Your task to perform on an android device: check out phone information Image 0: 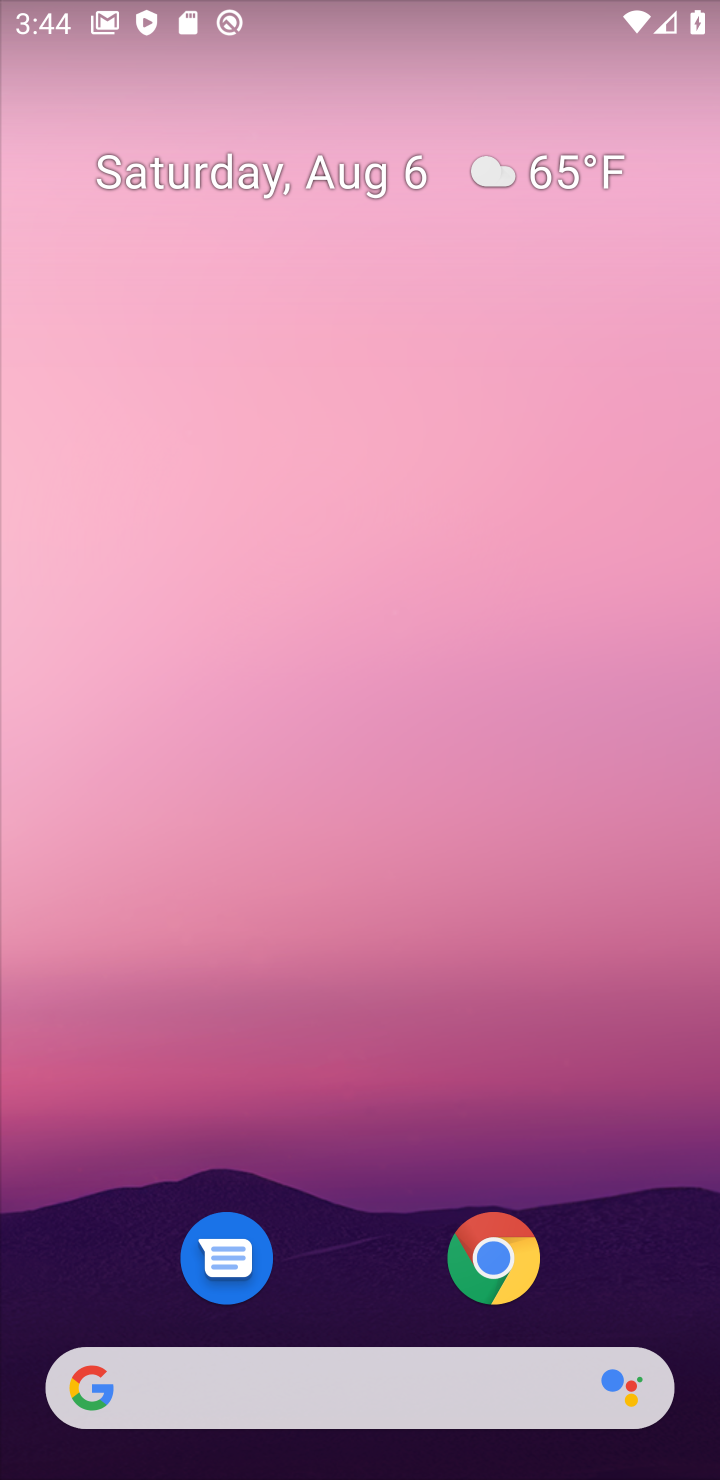
Step 0: drag from (367, 59) to (495, 0)
Your task to perform on an android device: check out phone information Image 1: 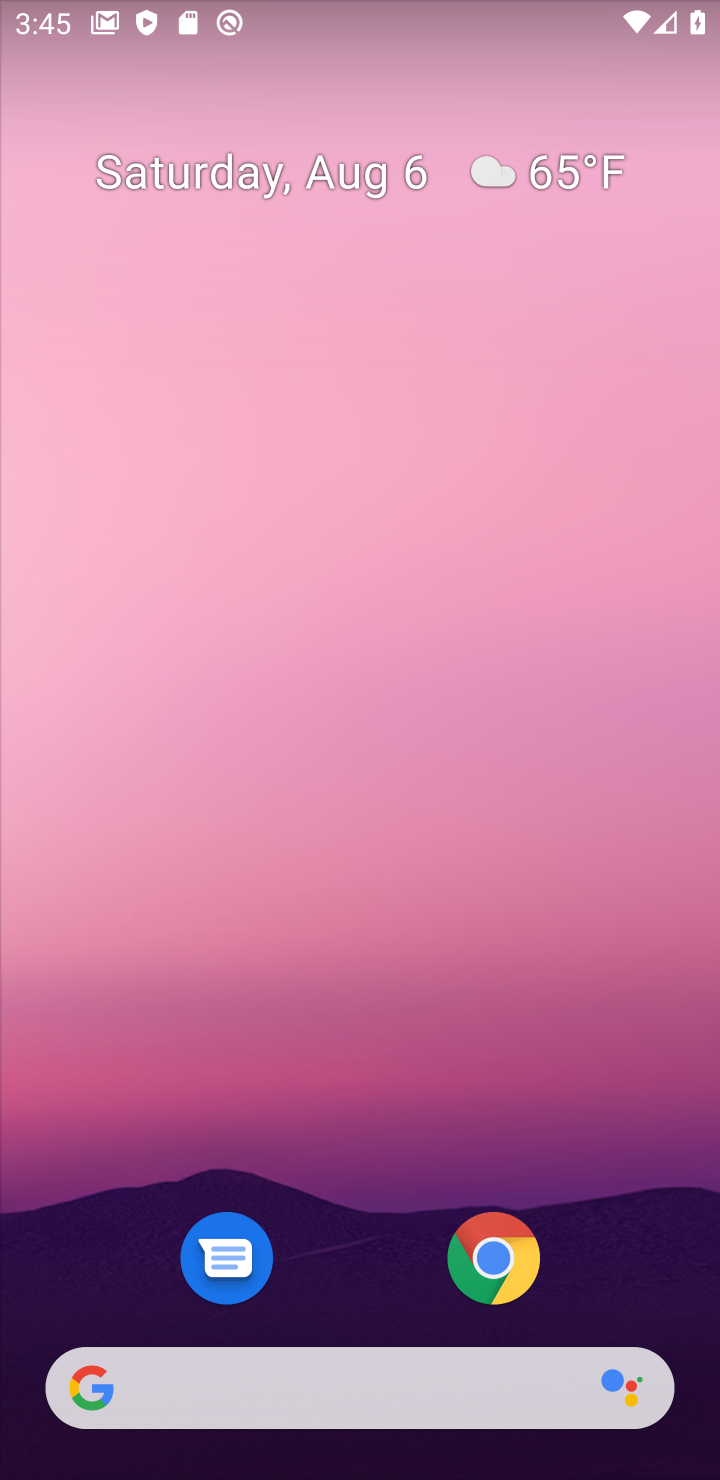
Step 1: drag from (377, 1259) to (508, 0)
Your task to perform on an android device: check out phone information Image 2: 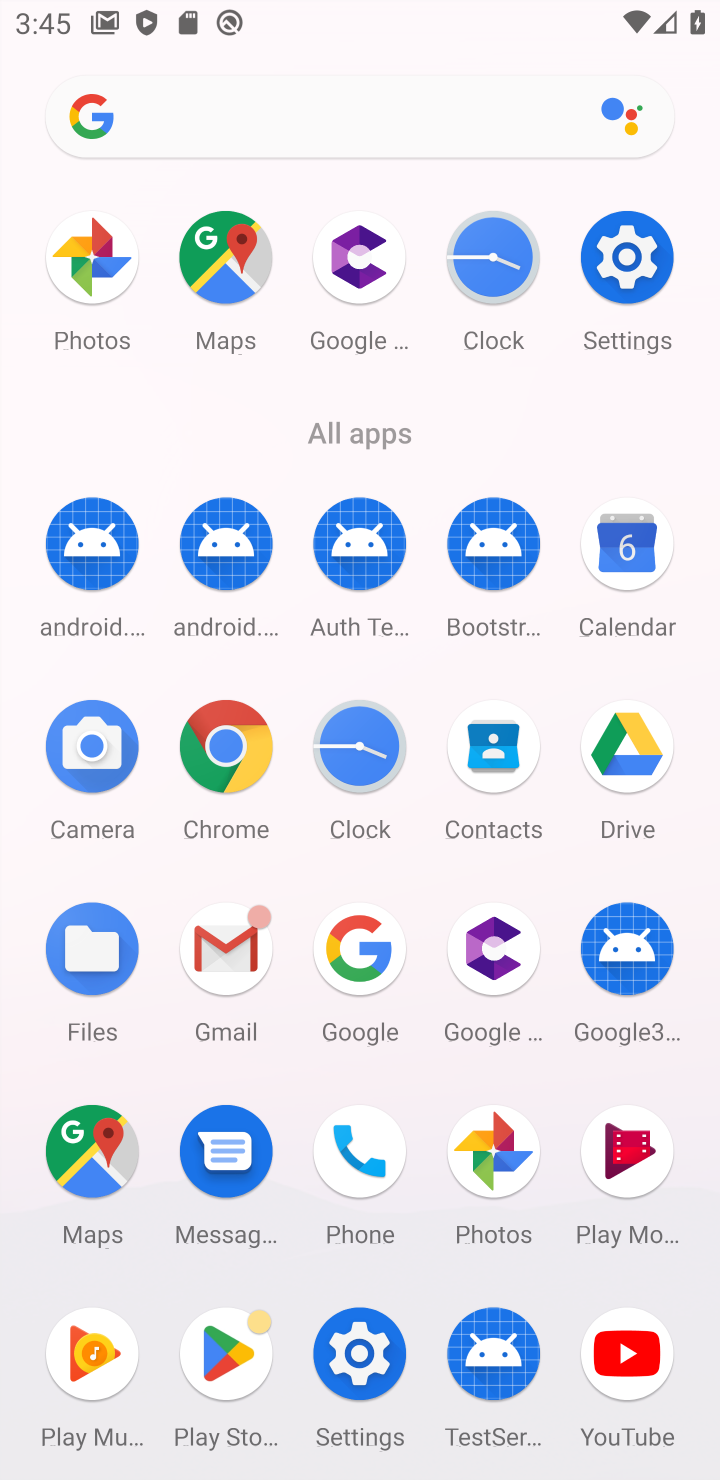
Step 2: click (363, 1358)
Your task to perform on an android device: check out phone information Image 3: 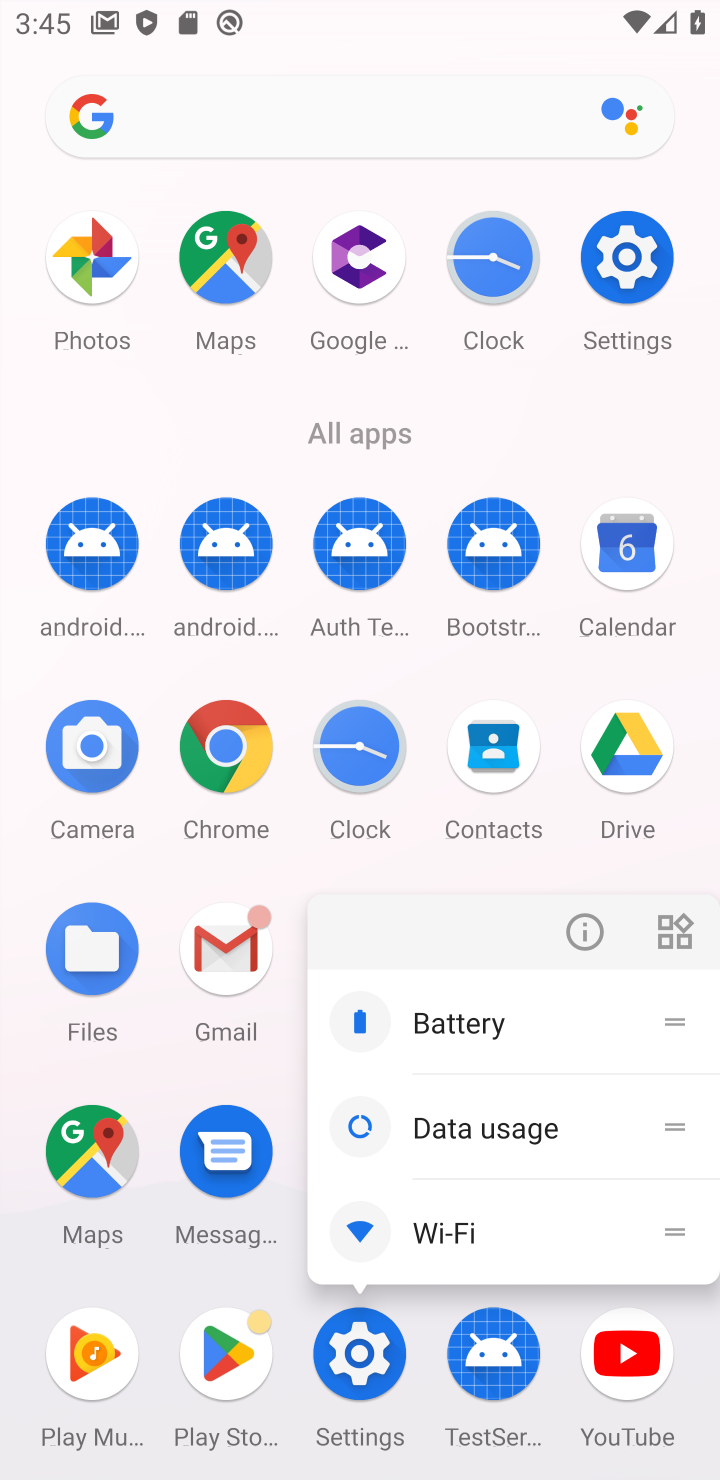
Step 3: click (372, 1371)
Your task to perform on an android device: check out phone information Image 4: 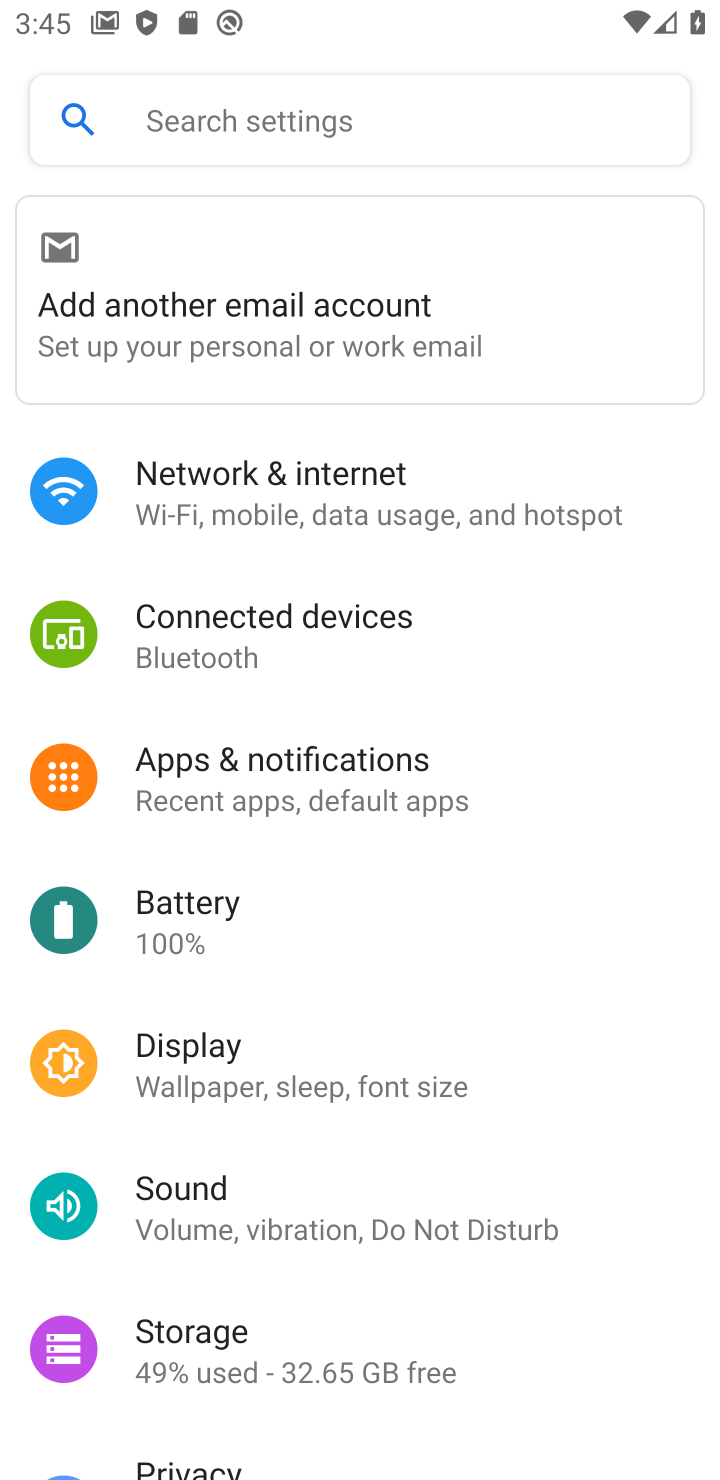
Step 4: drag from (268, 1104) to (455, 202)
Your task to perform on an android device: check out phone information Image 5: 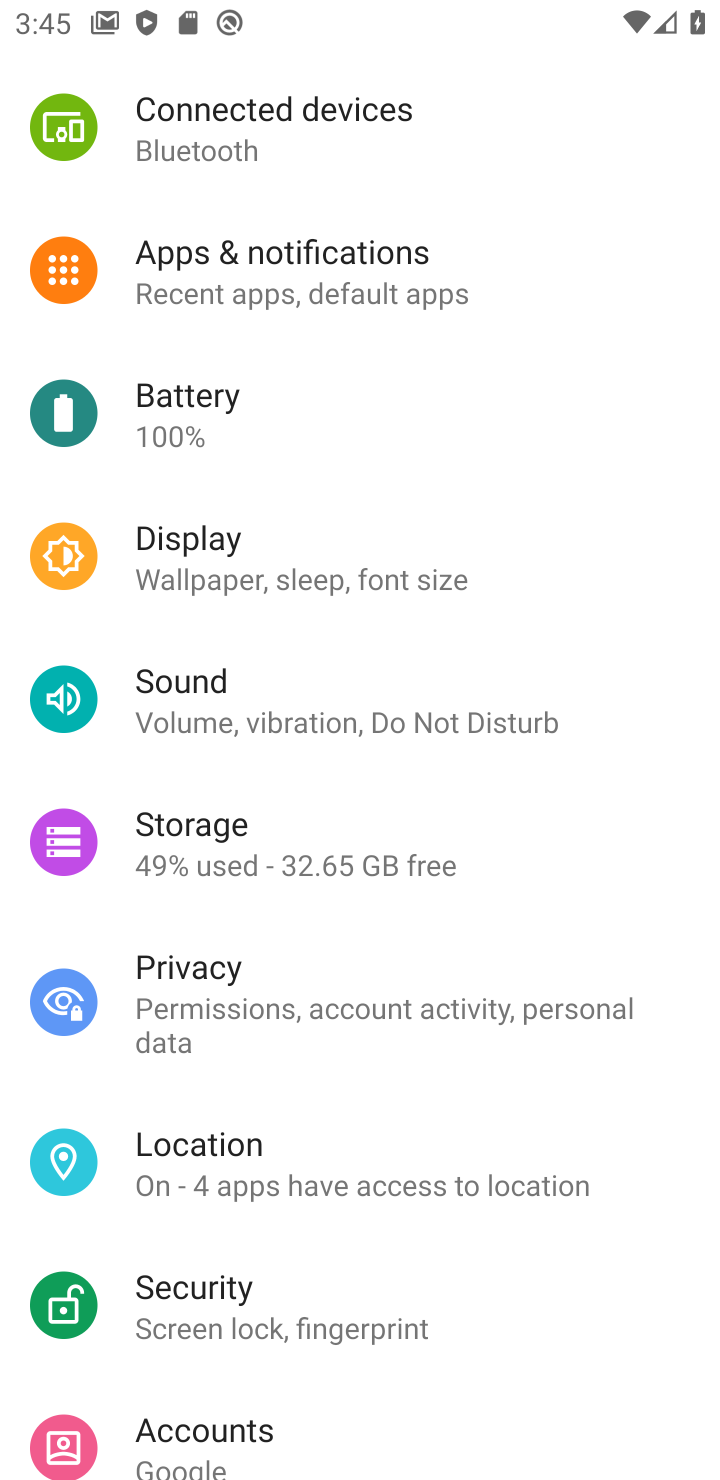
Step 5: drag from (359, 1015) to (594, 8)
Your task to perform on an android device: check out phone information Image 6: 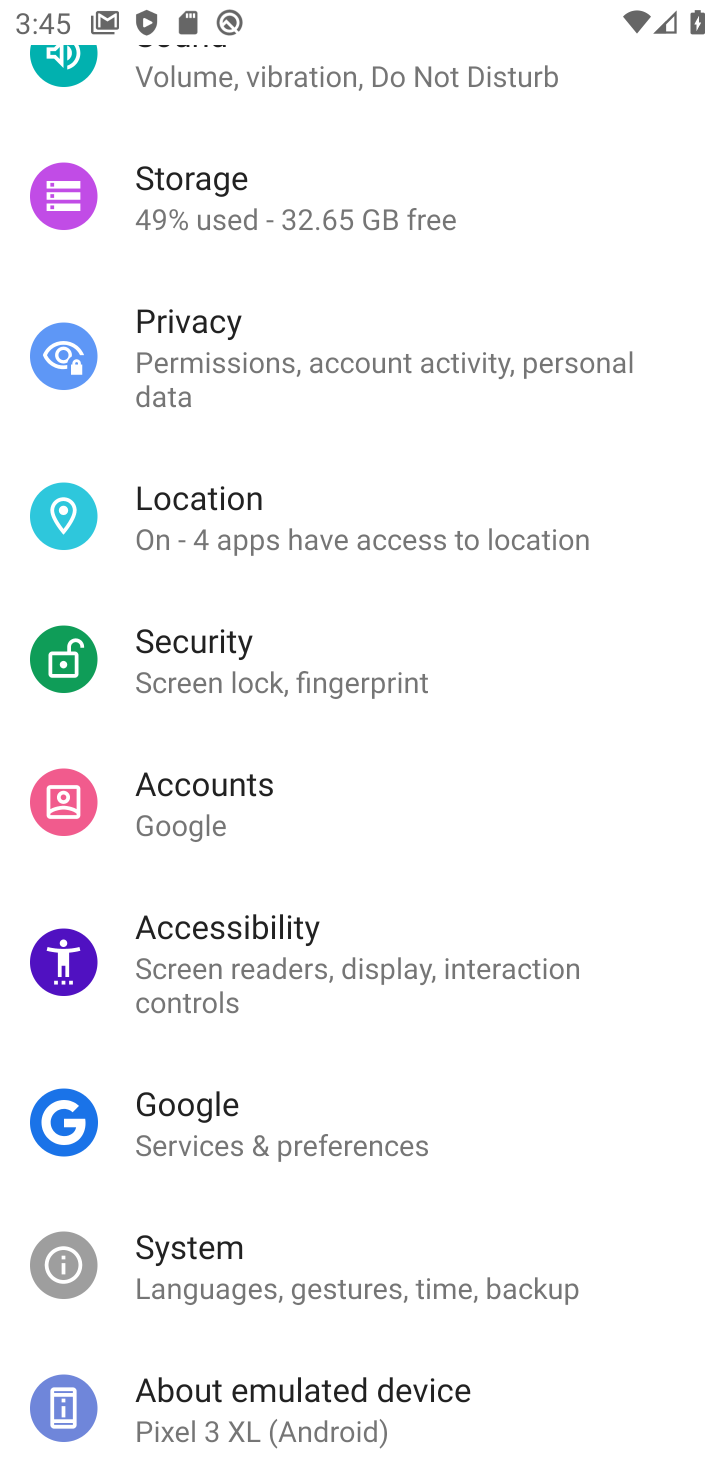
Step 6: drag from (392, 1165) to (531, 212)
Your task to perform on an android device: check out phone information Image 7: 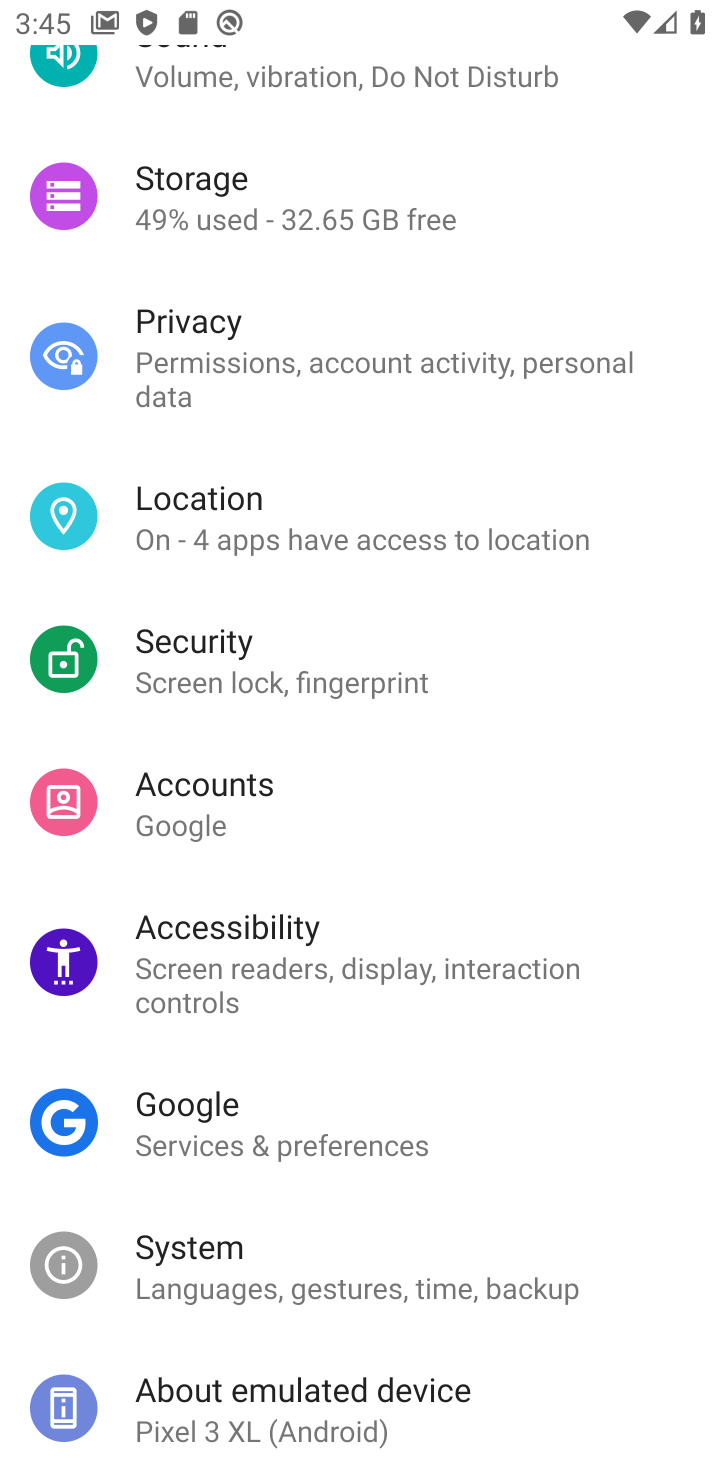
Step 7: click (282, 1409)
Your task to perform on an android device: check out phone information Image 8: 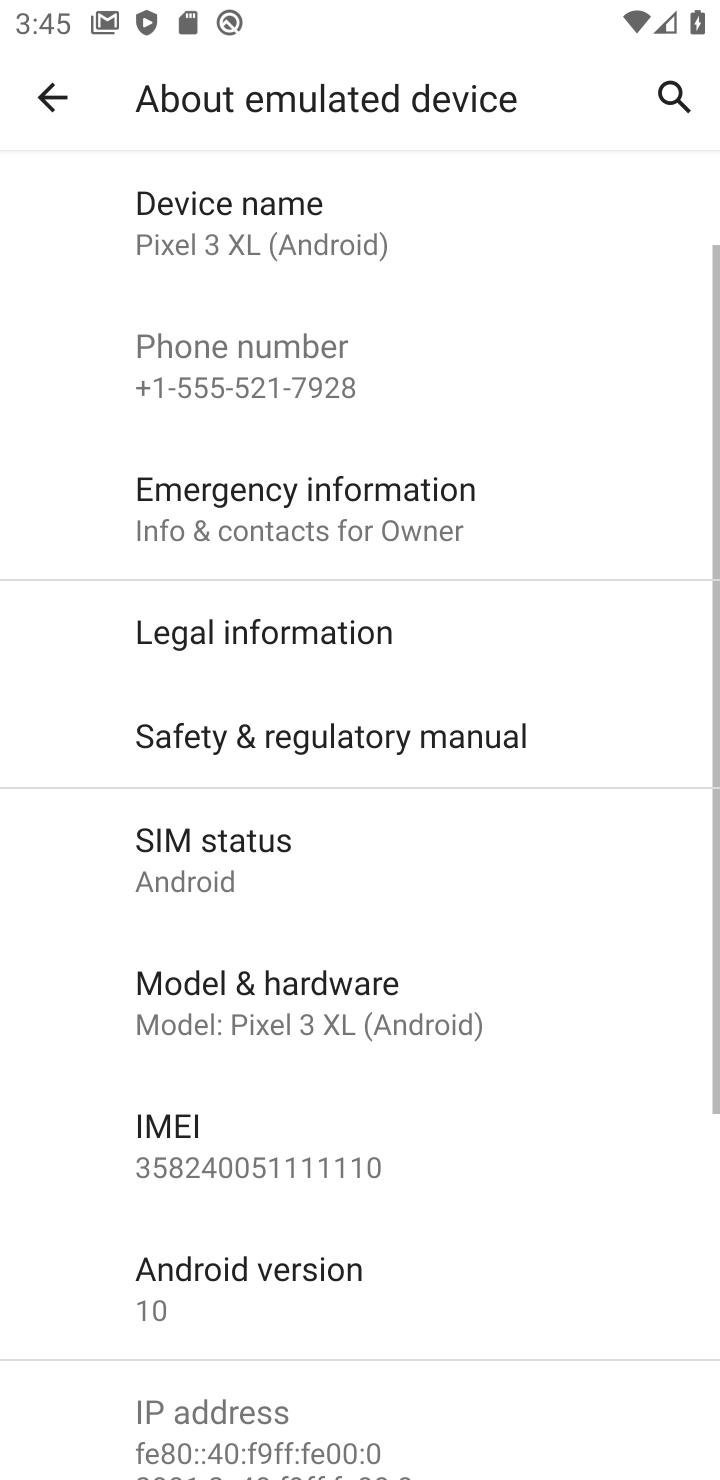
Step 8: task complete